Your task to perform on an android device: open chrome privacy settings Image 0: 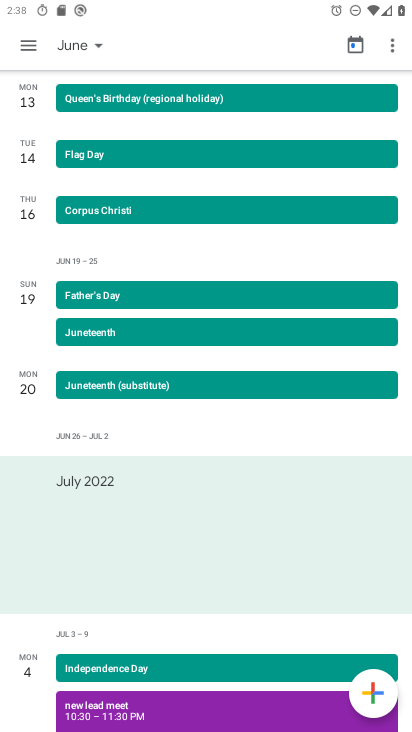
Step 0: press home button
Your task to perform on an android device: open chrome privacy settings Image 1: 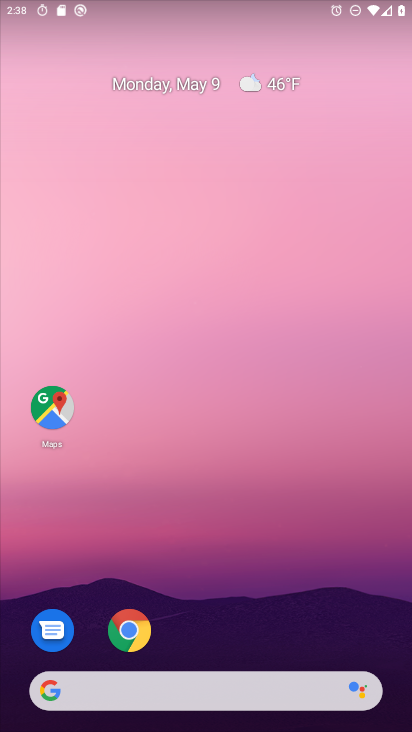
Step 1: drag from (286, 717) to (239, 304)
Your task to perform on an android device: open chrome privacy settings Image 2: 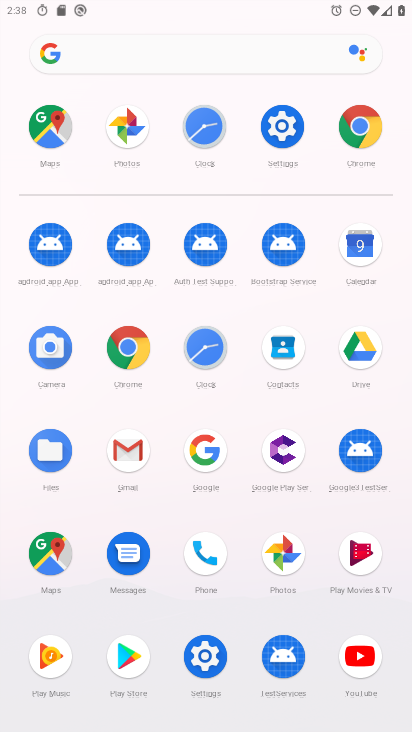
Step 2: click (209, 636)
Your task to perform on an android device: open chrome privacy settings Image 3: 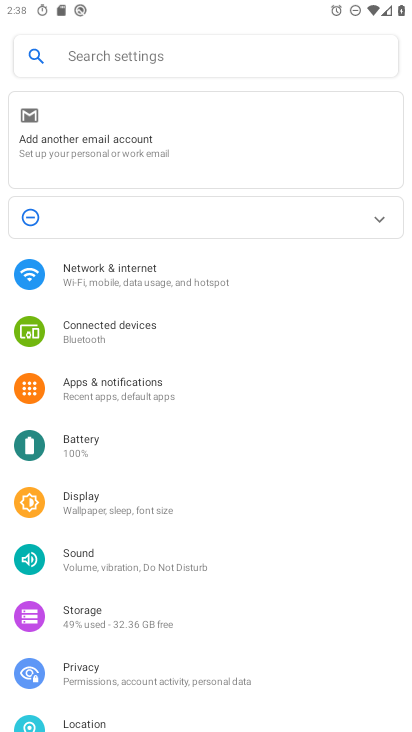
Step 3: press home button
Your task to perform on an android device: open chrome privacy settings Image 4: 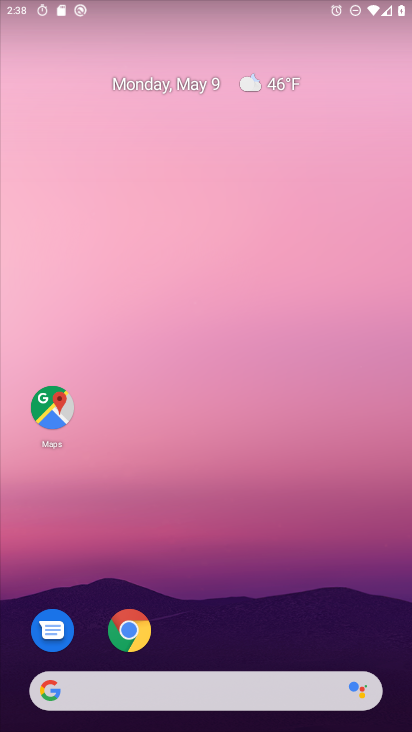
Step 4: drag from (259, 699) to (219, 265)
Your task to perform on an android device: open chrome privacy settings Image 5: 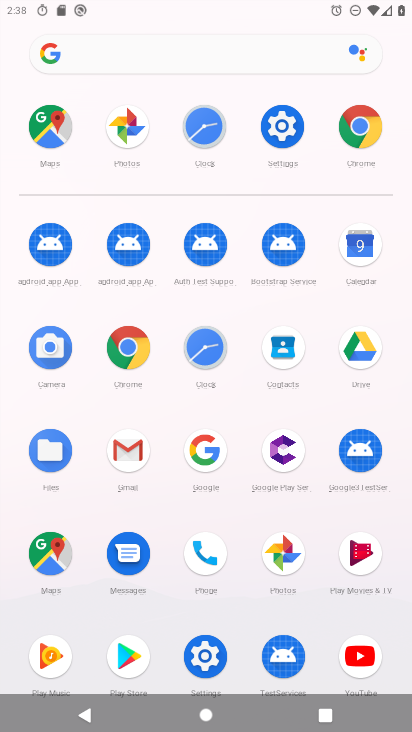
Step 5: click (349, 134)
Your task to perform on an android device: open chrome privacy settings Image 6: 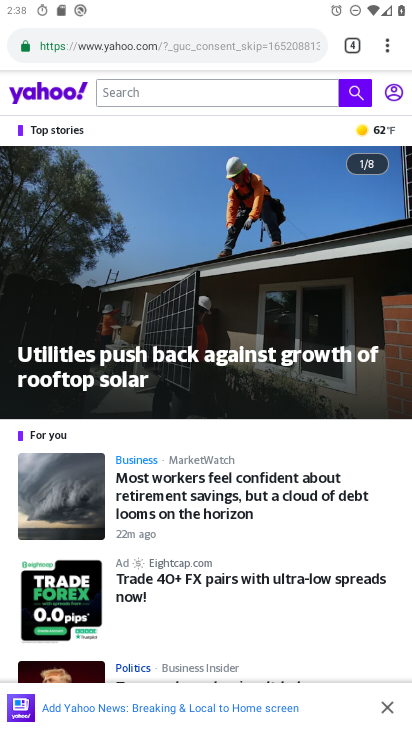
Step 6: click (377, 42)
Your task to perform on an android device: open chrome privacy settings Image 7: 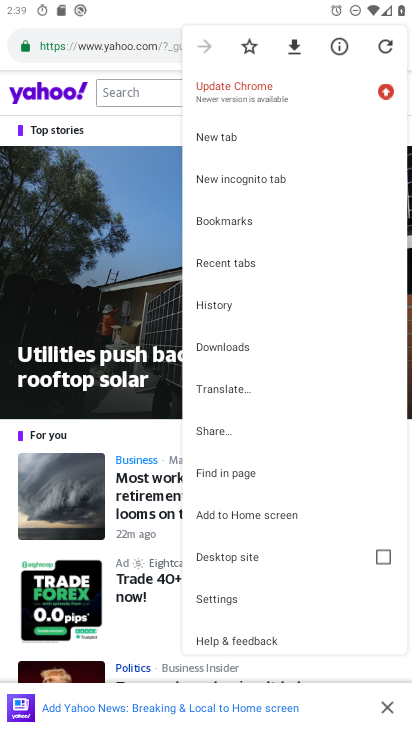
Step 7: click (217, 597)
Your task to perform on an android device: open chrome privacy settings Image 8: 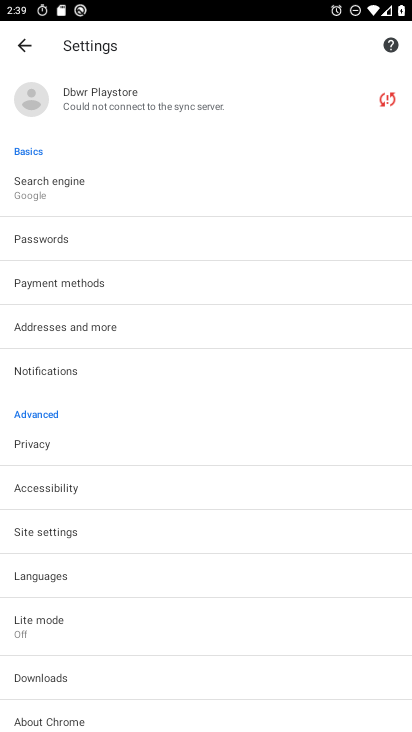
Step 8: click (47, 443)
Your task to perform on an android device: open chrome privacy settings Image 9: 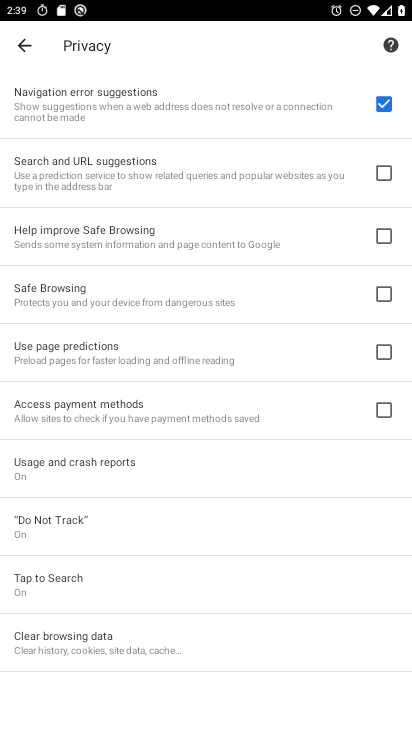
Step 9: task complete